Your task to perform on an android device: Go to Reddit.com Image 0: 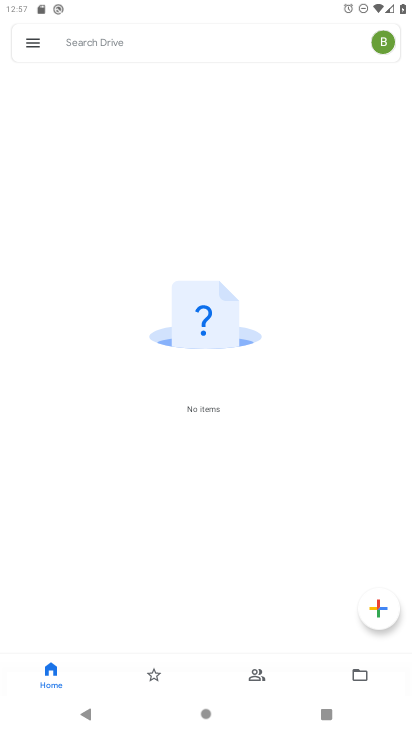
Step 0: press home button
Your task to perform on an android device: Go to Reddit.com Image 1: 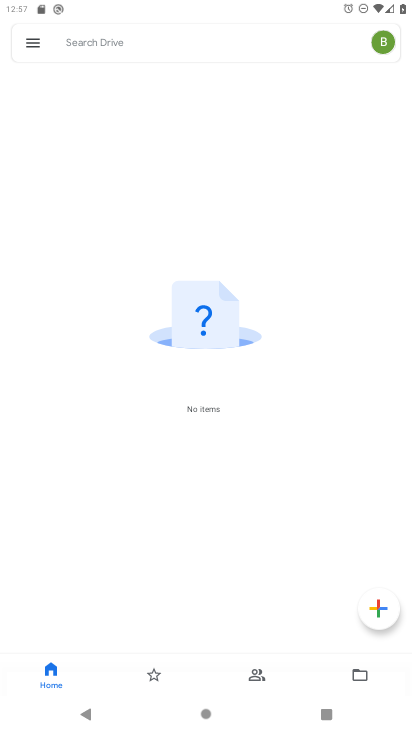
Step 1: drag from (381, 642) to (216, 0)
Your task to perform on an android device: Go to Reddit.com Image 2: 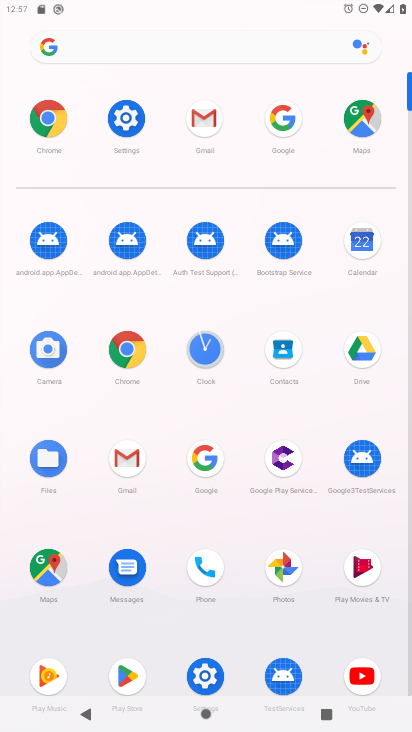
Step 2: click (202, 471)
Your task to perform on an android device: Go to Reddit.com Image 3: 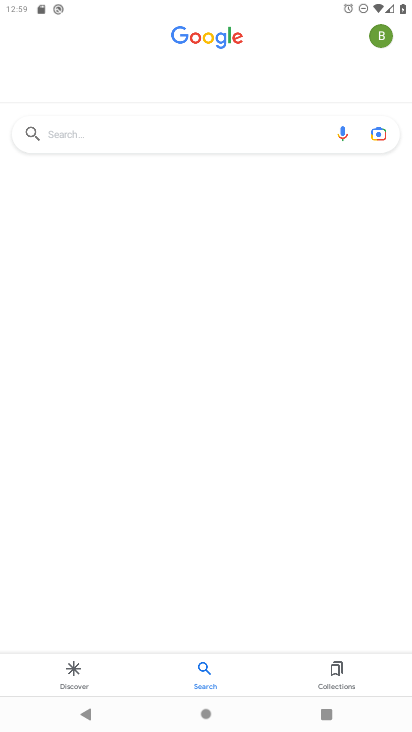
Step 3: click (104, 113)
Your task to perform on an android device: Go to Reddit.com Image 4: 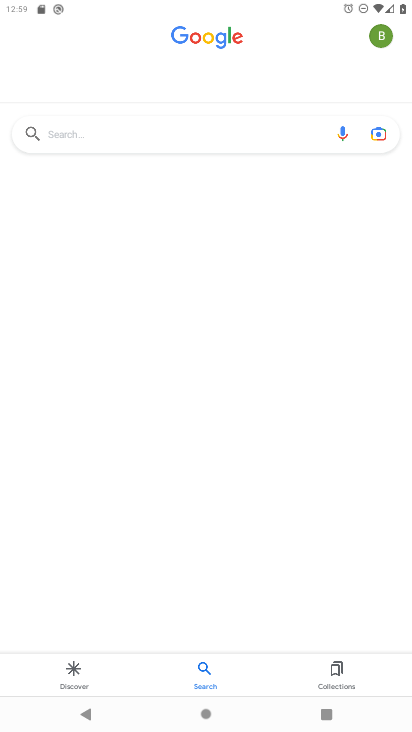
Step 4: click (69, 127)
Your task to perform on an android device: Go to Reddit.com Image 5: 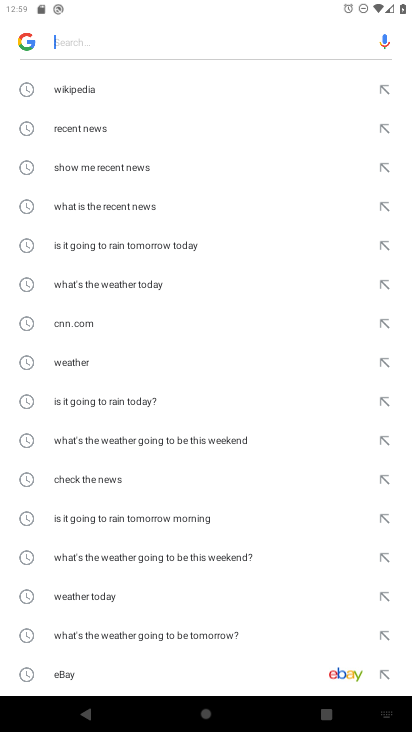
Step 5: type "Reddit.com"
Your task to perform on an android device: Go to Reddit.com Image 6: 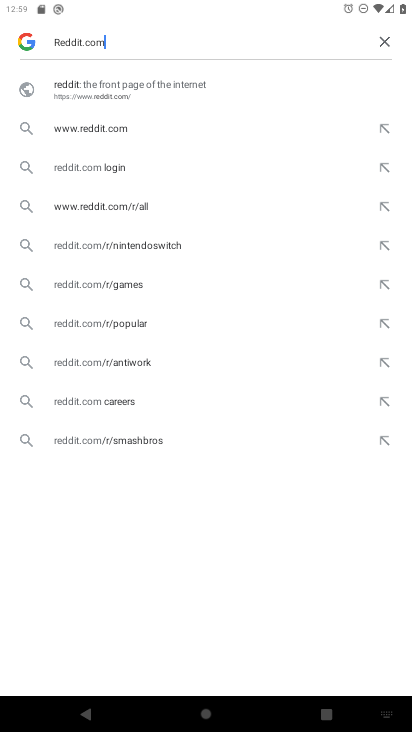
Step 6: click (96, 89)
Your task to perform on an android device: Go to Reddit.com Image 7: 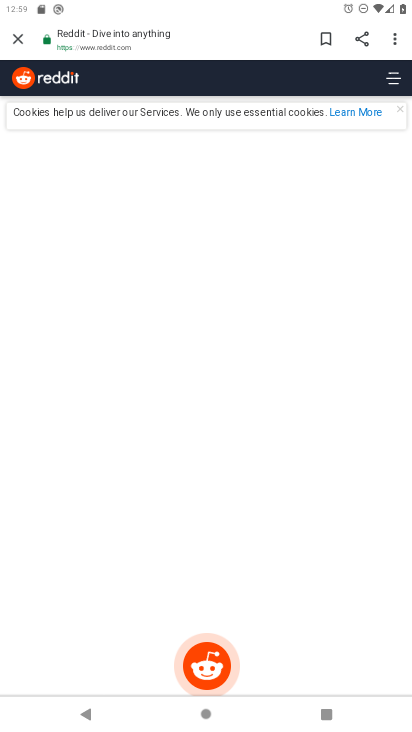
Step 7: task complete